Your task to perform on an android device: Search for duracell triple a on bestbuy.com, select the first entry, and add it to the cart. Image 0: 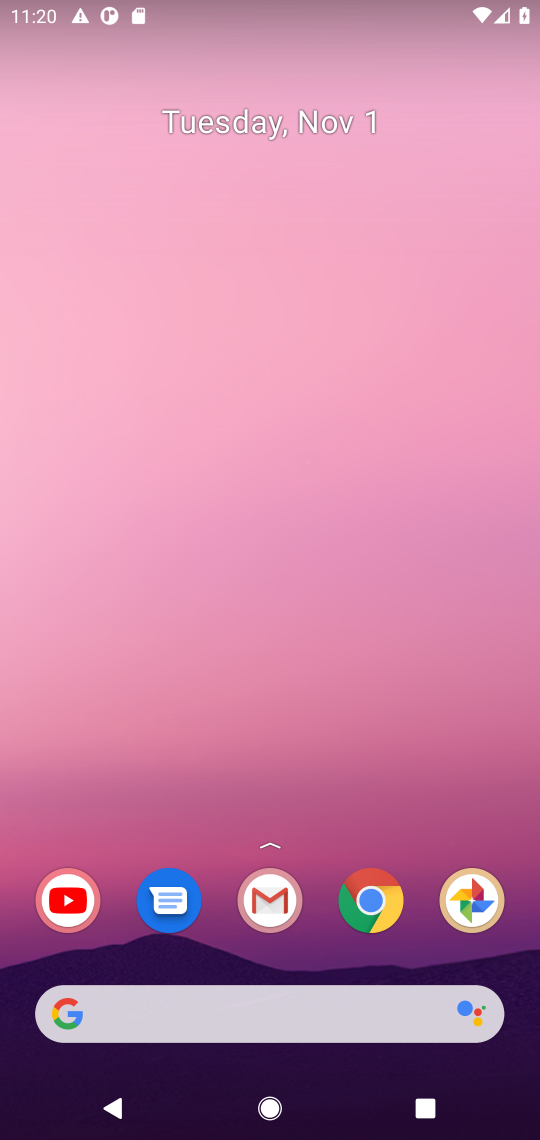
Step 0: click (367, 904)
Your task to perform on an android device: Search for duracell triple a on bestbuy.com, select the first entry, and add it to the cart. Image 1: 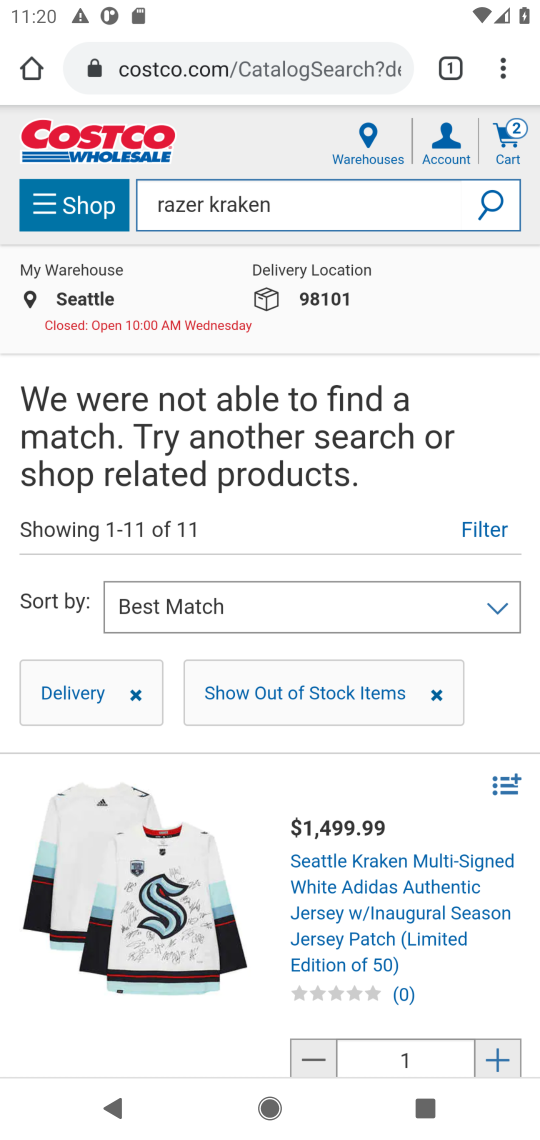
Step 1: click (367, 904)
Your task to perform on an android device: Search for duracell triple a on bestbuy.com, select the first entry, and add it to the cart. Image 2: 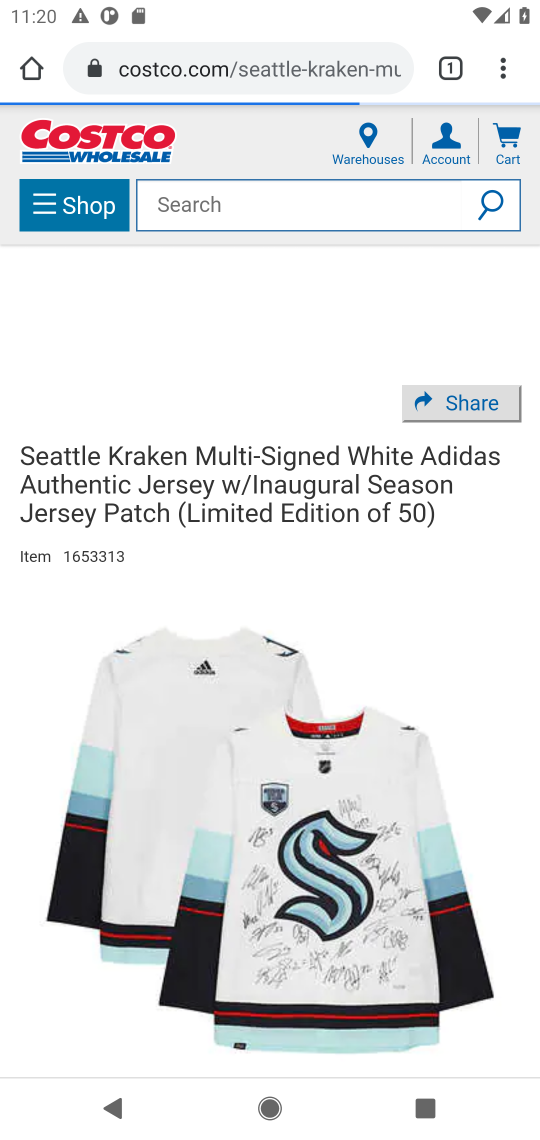
Step 2: click (293, 85)
Your task to perform on an android device: Search for duracell triple a on bestbuy.com, select the first entry, and add it to the cart. Image 3: 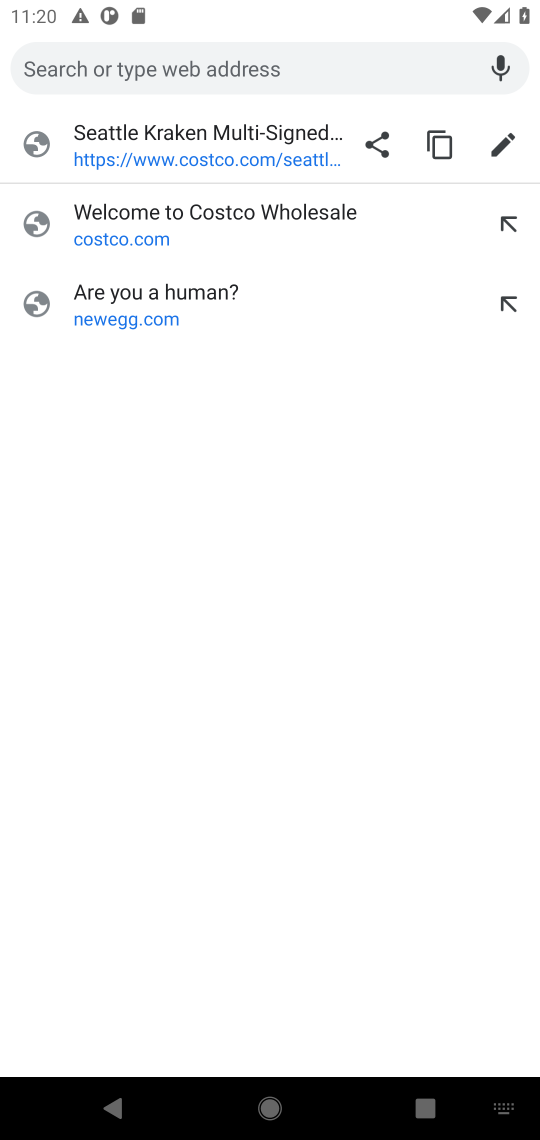
Step 3: type "bestbuy"
Your task to perform on an android device: Search for duracell triple a on bestbuy.com, select the first entry, and add it to the cart. Image 4: 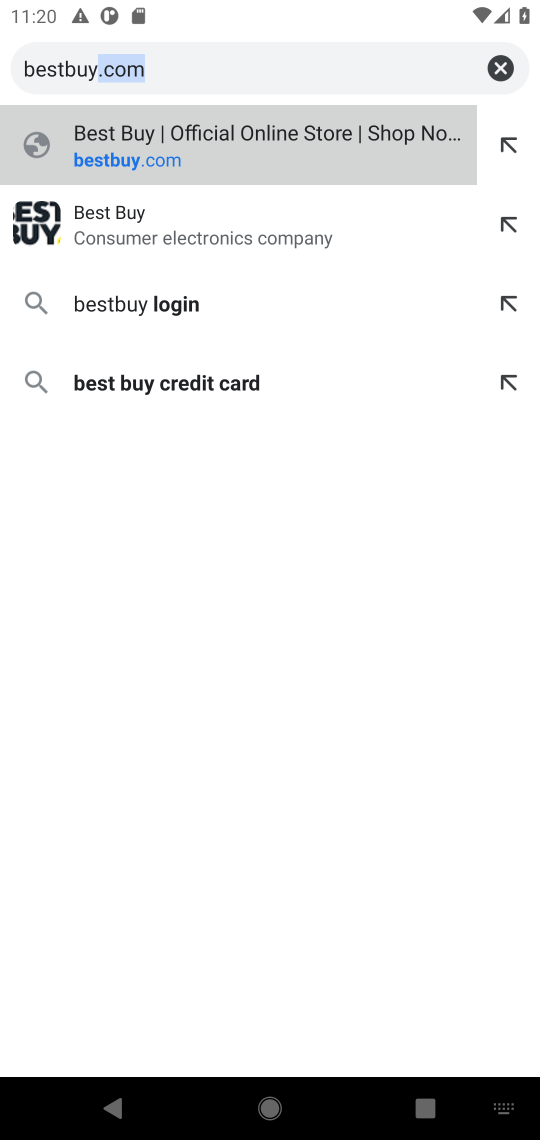
Step 4: click (292, 248)
Your task to perform on an android device: Search for duracell triple a on bestbuy.com, select the first entry, and add it to the cart. Image 5: 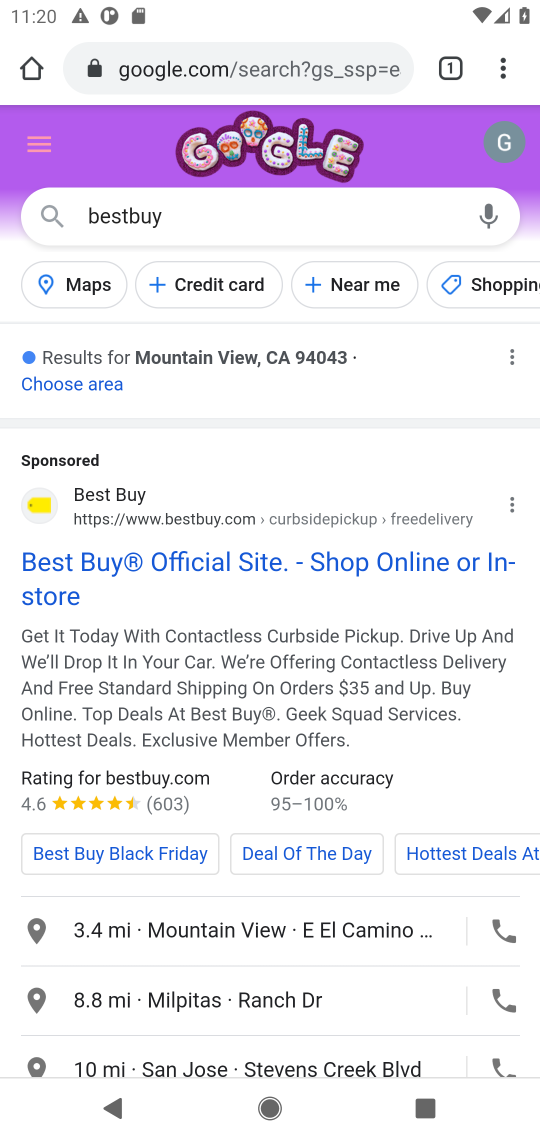
Step 5: click (266, 544)
Your task to perform on an android device: Search for duracell triple a on bestbuy.com, select the first entry, and add it to the cart. Image 6: 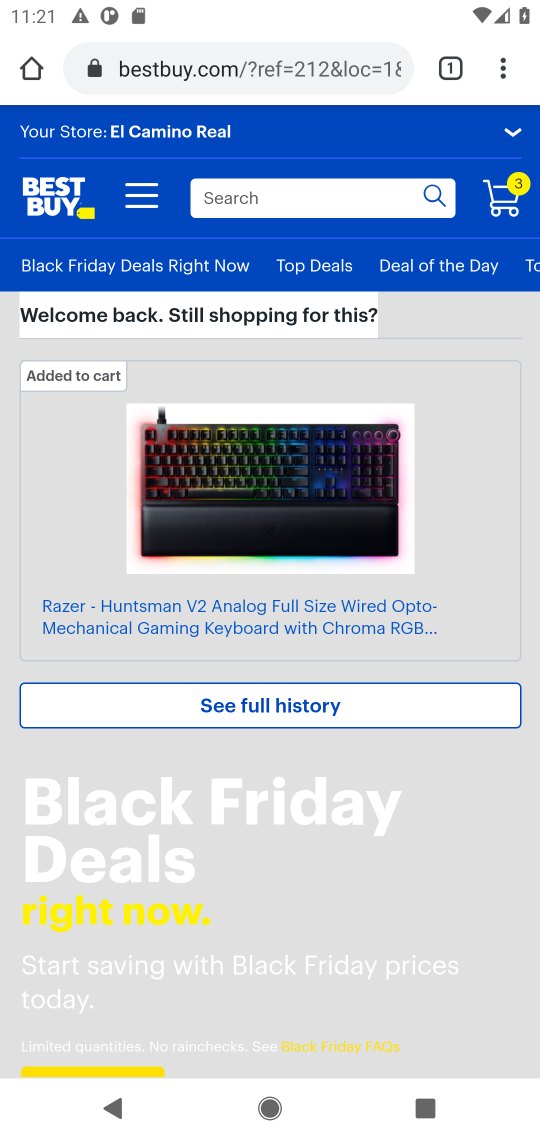
Step 6: click (257, 187)
Your task to perform on an android device: Search for duracell triple a on bestbuy.com, select the first entry, and add it to the cart. Image 7: 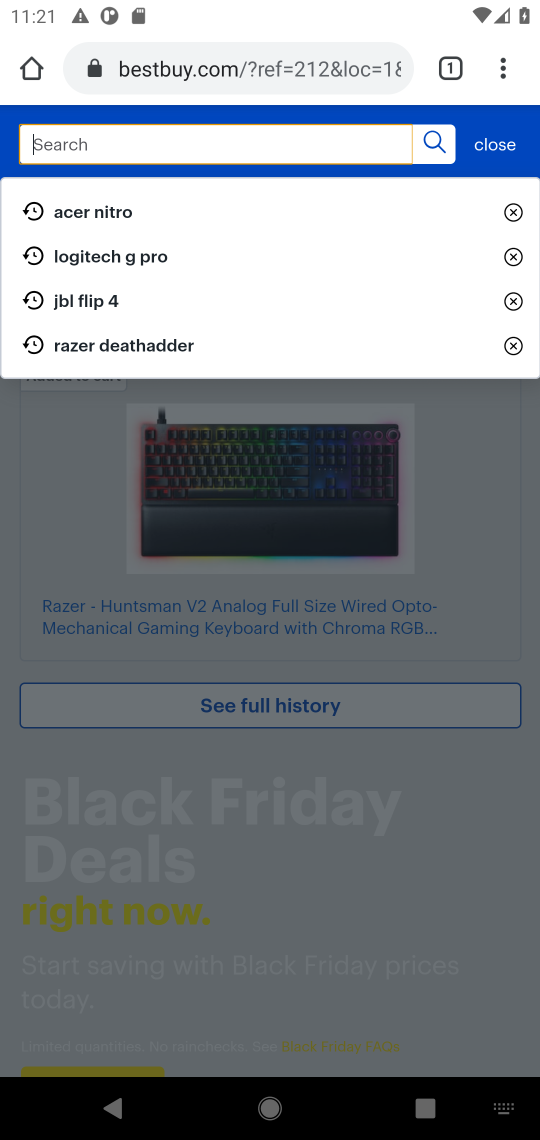
Step 7: type "duracell triple a "
Your task to perform on an android device: Search for duracell triple a on bestbuy.com, select the first entry, and add it to the cart. Image 8: 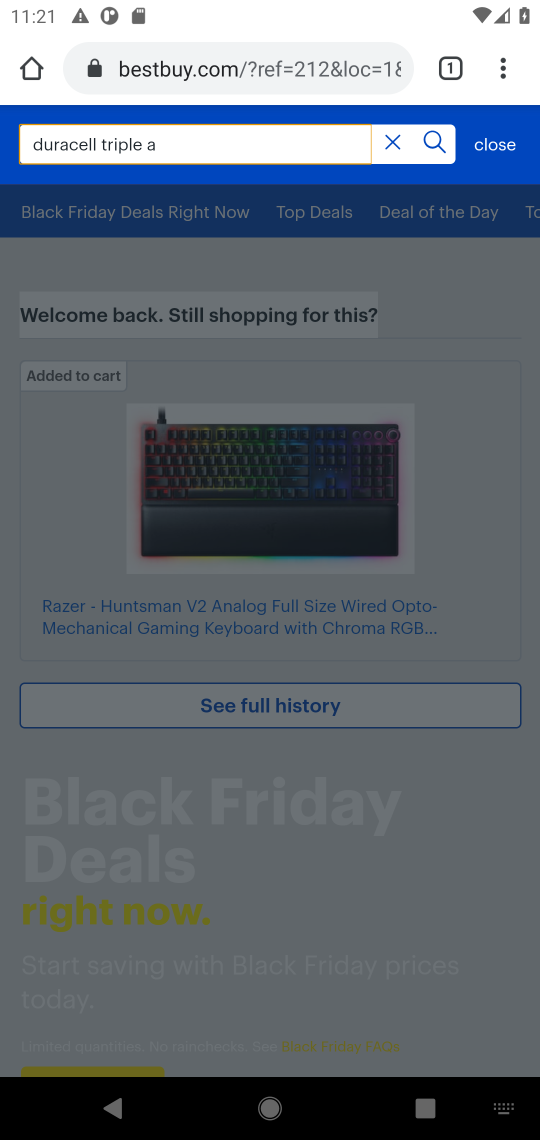
Step 8: click (431, 144)
Your task to perform on an android device: Search for duracell triple a on bestbuy.com, select the first entry, and add it to the cart. Image 9: 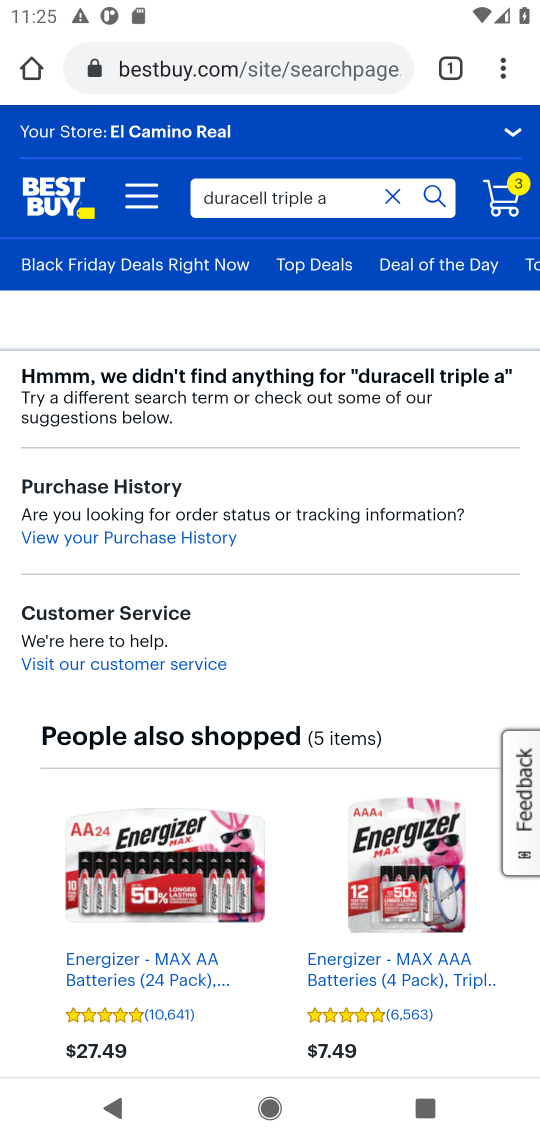
Step 9: task complete